Your task to perform on an android device: Go to display settings Image 0: 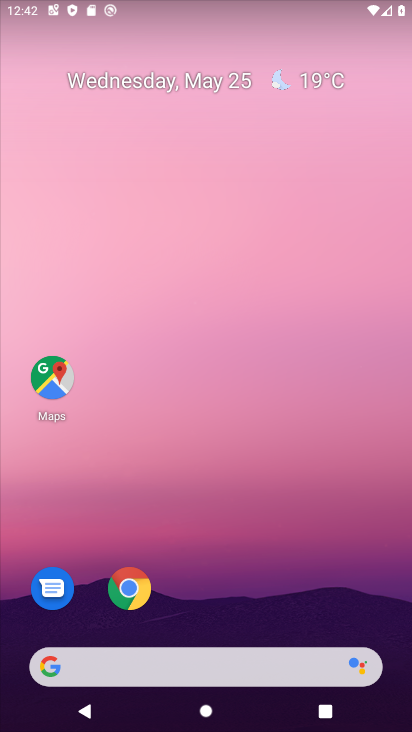
Step 0: drag from (160, 633) to (256, 145)
Your task to perform on an android device: Go to display settings Image 1: 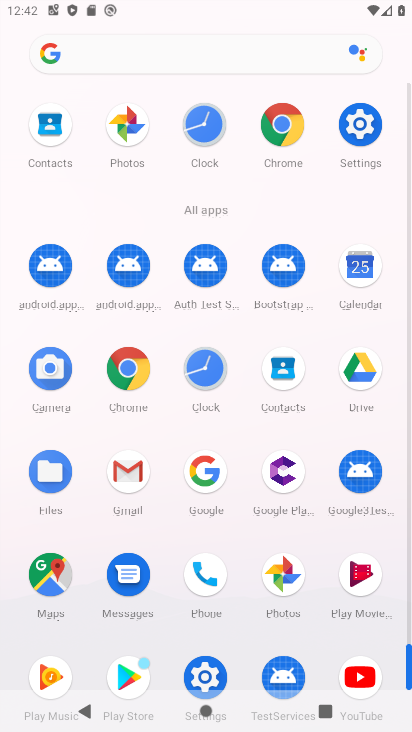
Step 1: click (209, 677)
Your task to perform on an android device: Go to display settings Image 2: 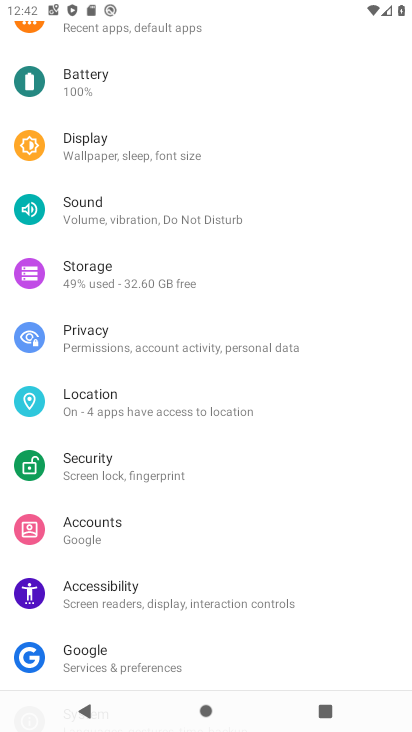
Step 2: click (179, 155)
Your task to perform on an android device: Go to display settings Image 3: 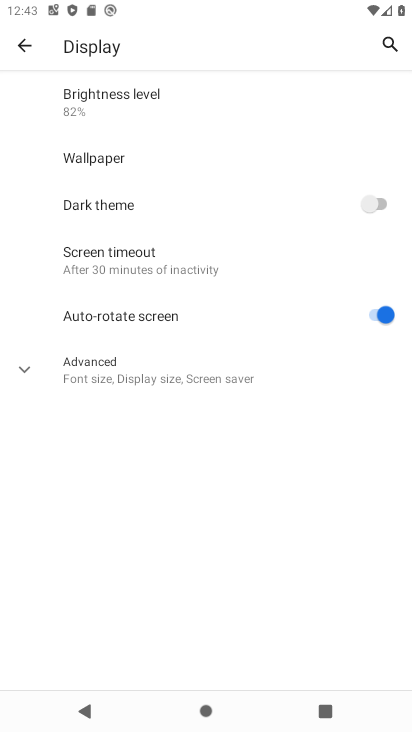
Step 3: task complete